Your task to perform on an android device: Open Google Maps and go to "Timeline" Image 0: 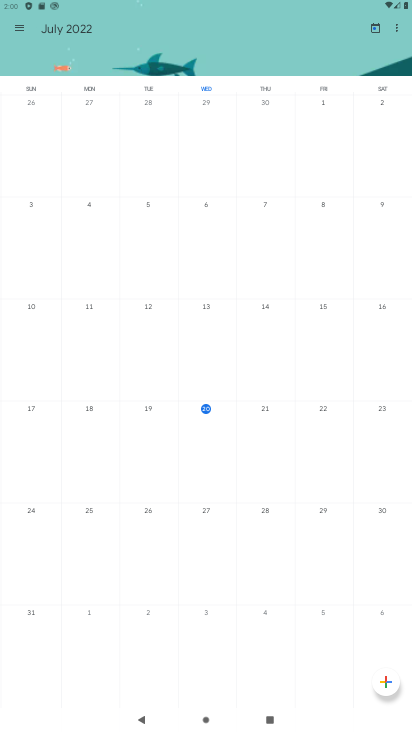
Step 0: press home button
Your task to perform on an android device: Open Google Maps and go to "Timeline" Image 1: 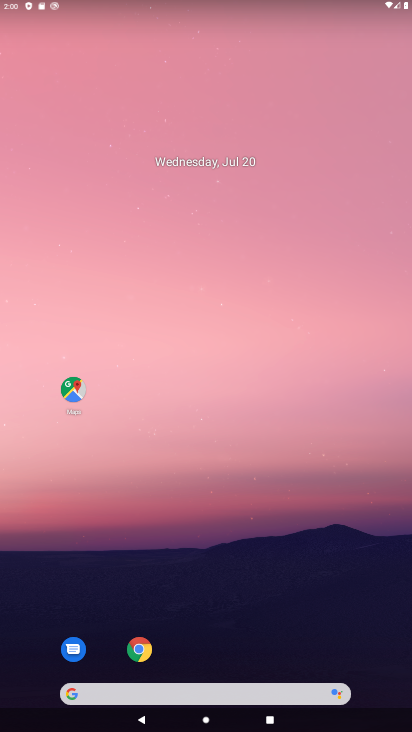
Step 1: drag from (264, 623) to (361, 116)
Your task to perform on an android device: Open Google Maps and go to "Timeline" Image 2: 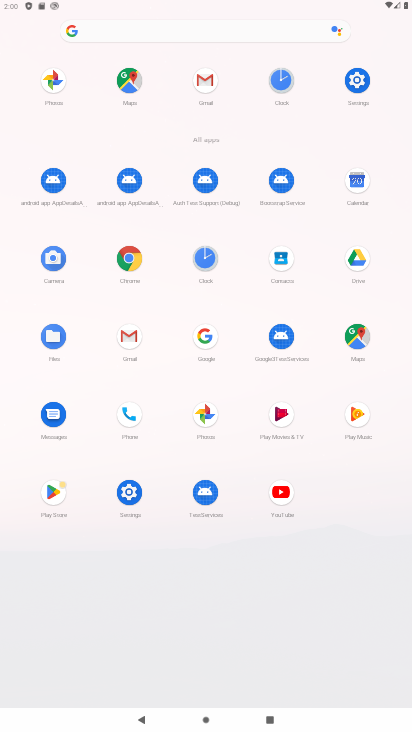
Step 2: click (362, 341)
Your task to perform on an android device: Open Google Maps and go to "Timeline" Image 3: 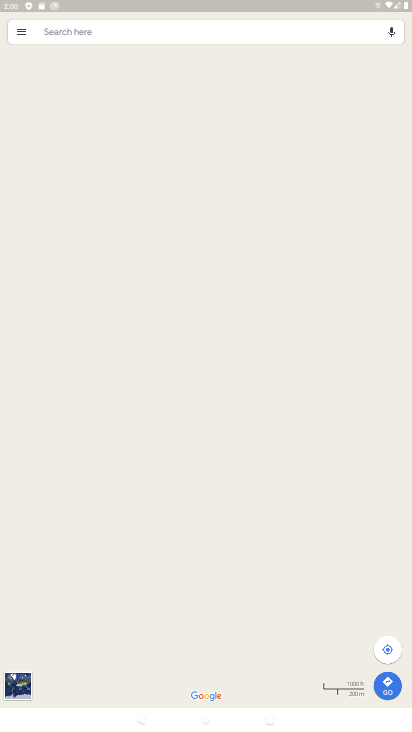
Step 3: click (32, 31)
Your task to perform on an android device: Open Google Maps and go to "Timeline" Image 4: 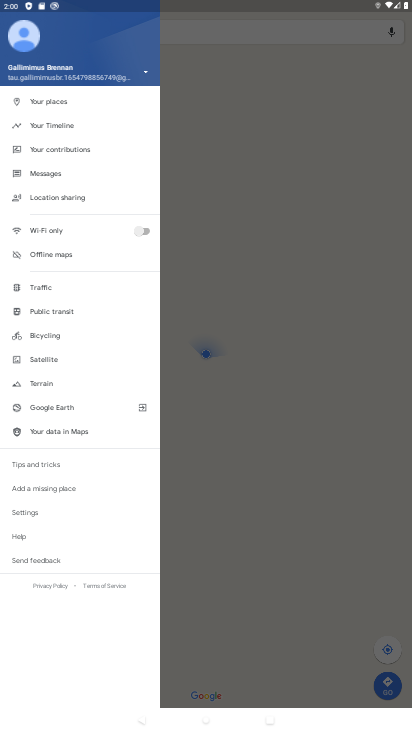
Step 4: click (73, 127)
Your task to perform on an android device: Open Google Maps and go to "Timeline" Image 5: 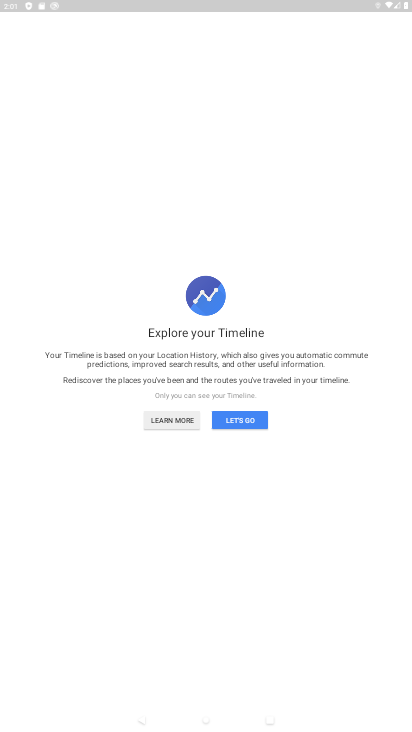
Step 5: click (250, 425)
Your task to perform on an android device: Open Google Maps and go to "Timeline" Image 6: 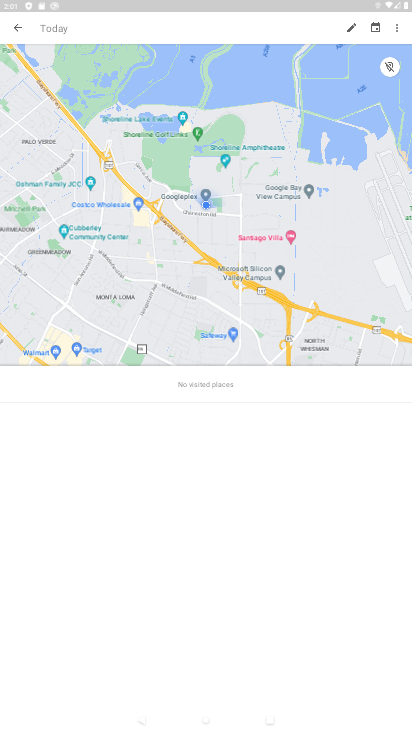
Step 6: task complete